Your task to perform on an android device: Go to Yahoo.com Image 0: 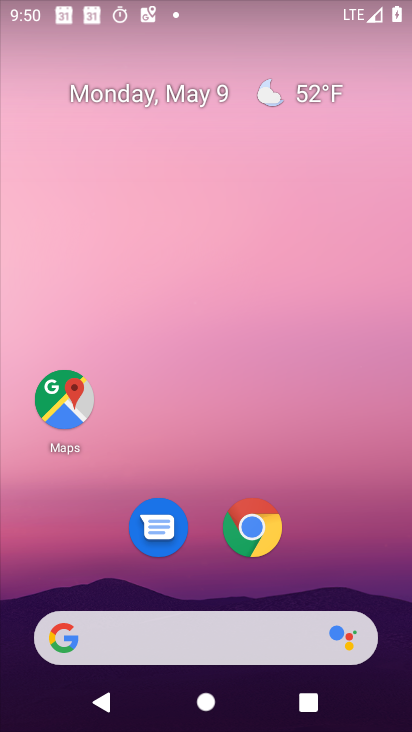
Step 0: drag from (381, 566) to (347, 104)
Your task to perform on an android device: Go to Yahoo.com Image 1: 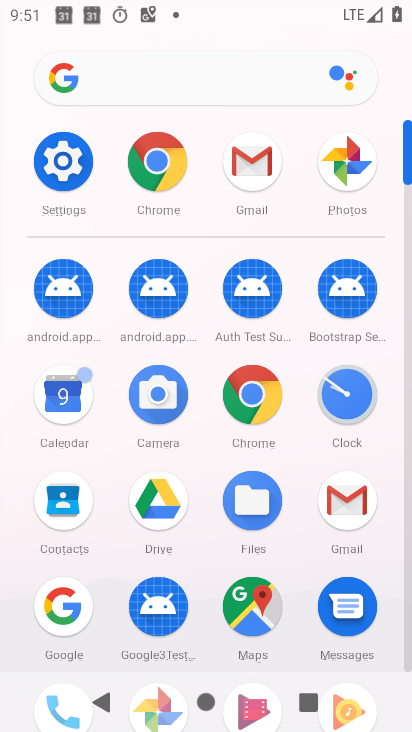
Step 1: click (165, 170)
Your task to perform on an android device: Go to Yahoo.com Image 2: 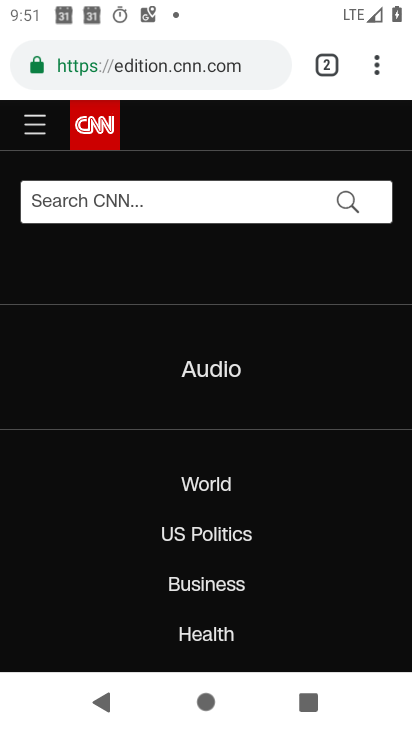
Step 2: click (245, 66)
Your task to perform on an android device: Go to Yahoo.com Image 3: 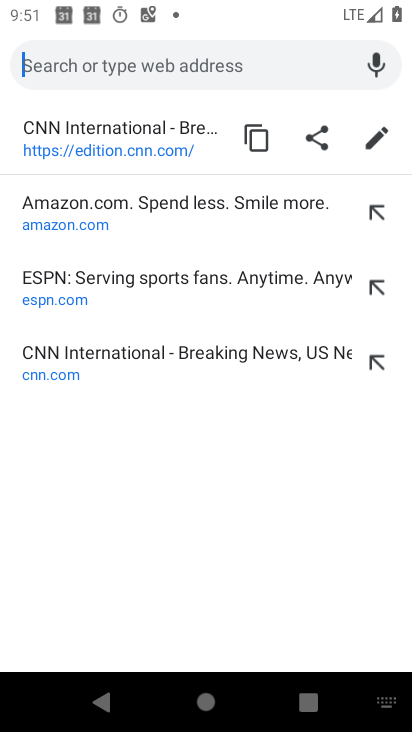
Step 3: type "yahoo.com"
Your task to perform on an android device: Go to Yahoo.com Image 4: 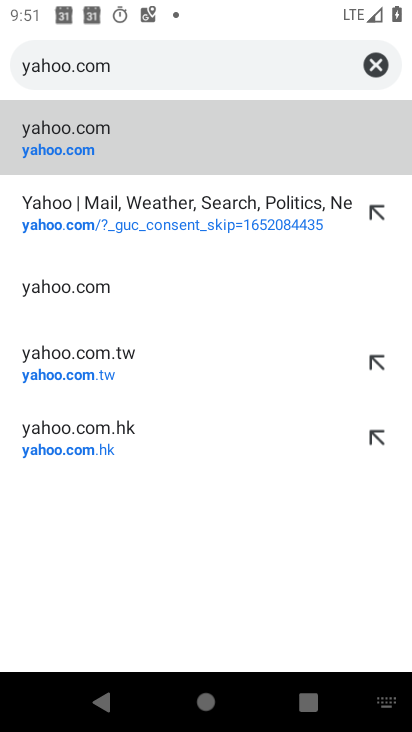
Step 4: click (67, 135)
Your task to perform on an android device: Go to Yahoo.com Image 5: 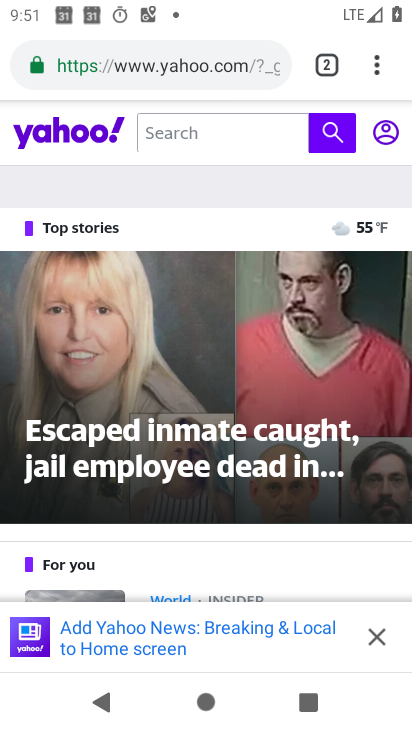
Step 5: task complete